Your task to perform on an android device: See recent photos Image 0: 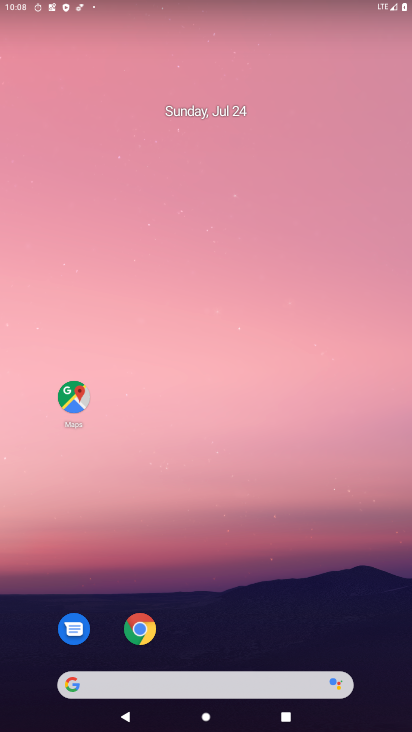
Step 0: press home button
Your task to perform on an android device: See recent photos Image 1: 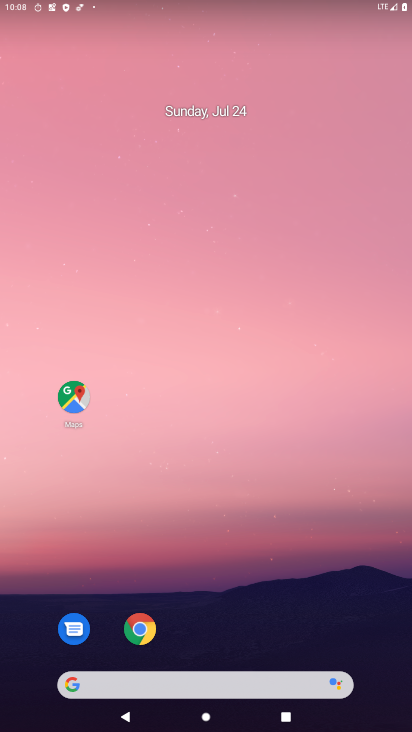
Step 1: drag from (320, 570) to (359, 170)
Your task to perform on an android device: See recent photos Image 2: 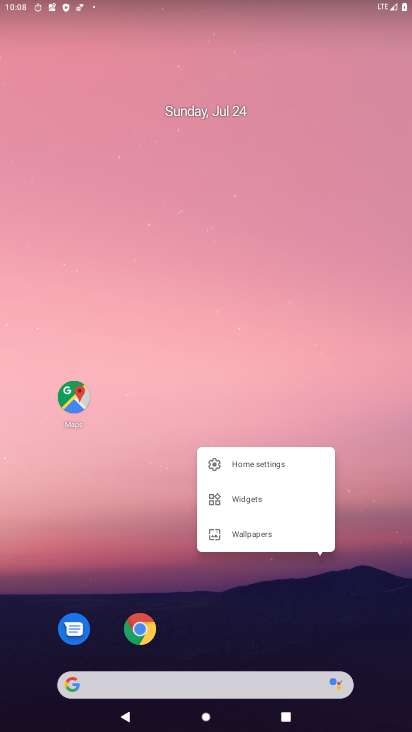
Step 2: press home button
Your task to perform on an android device: See recent photos Image 3: 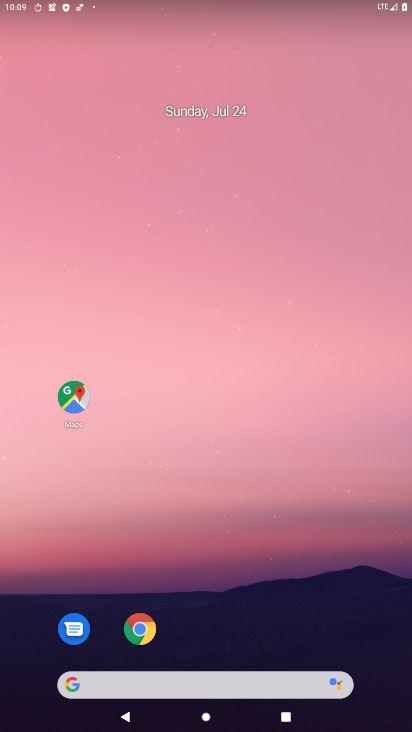
Step 3: drag from (274, 584) to (346, 49)
Your task to perform on an android device: See recent photos Image 4: 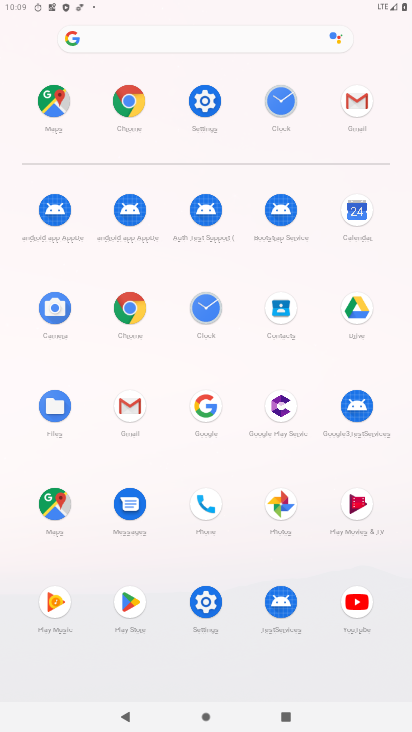
Step 4: click (279, 502)
Your task to perform on an android device: See recent photos Image 5: 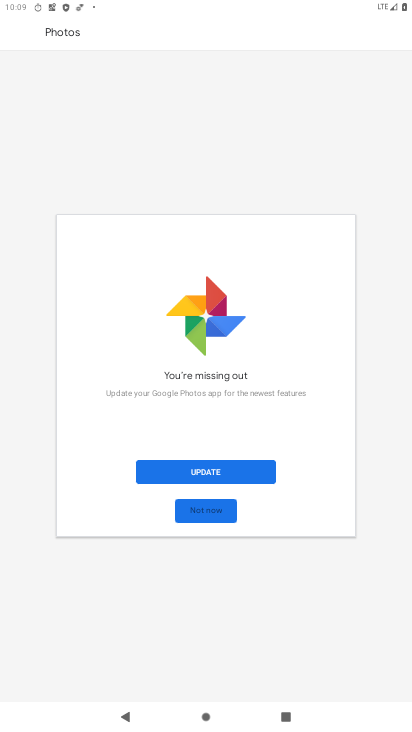
Step 5: click (226, 470)
Your task to perform on an android device: See recent photos Image 6: 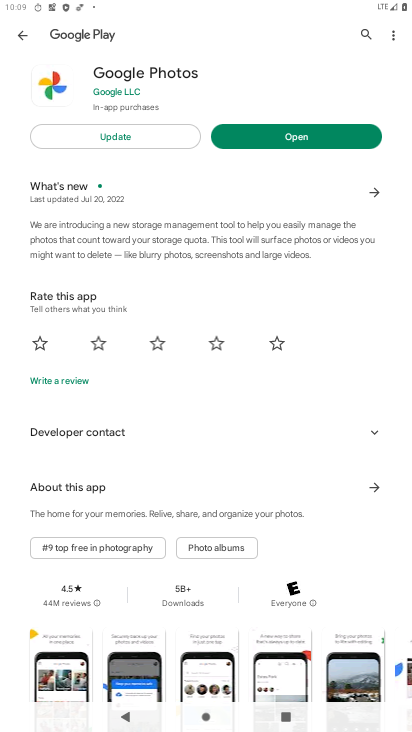
Step 6: click (139, 139)
Your task to perform on an android device: See recent photos Image 7: 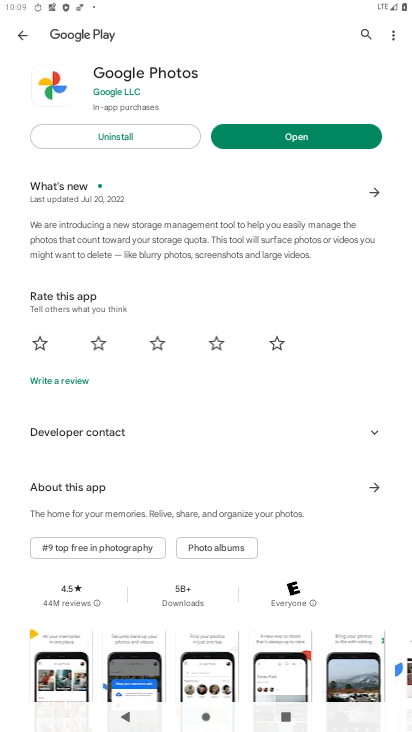
Step 7: click (354, 135)
Your task to perform on an android device: See recent photos Image 8: 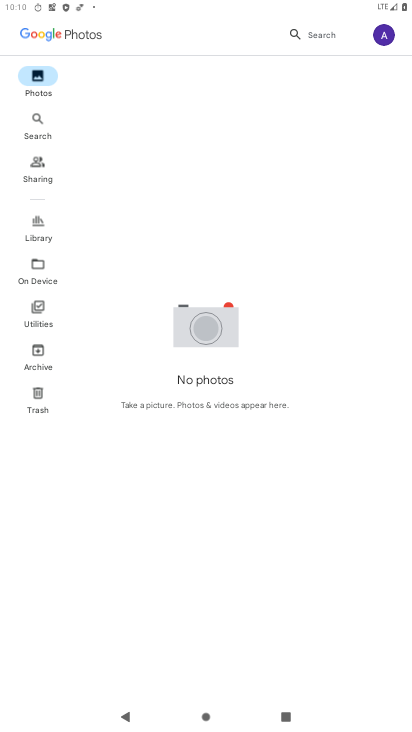
Step 8: click (331, 135)
Your task to perform on an android device: See recent photos Image 9: 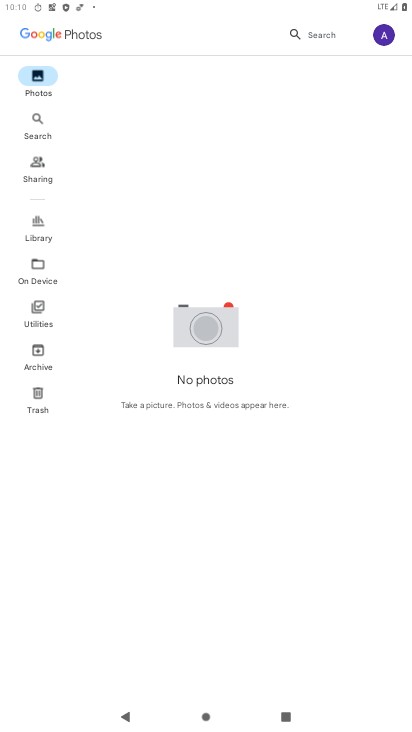
Step 9: task complete